Your task to perform on an android device: turn off sleep mode Image 0: 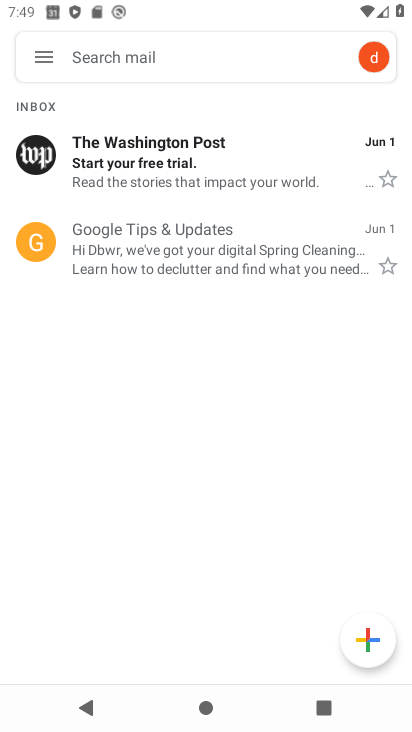
Step 0: press home button
Your task to perform on an android device: turn off sleep mode Image 1: 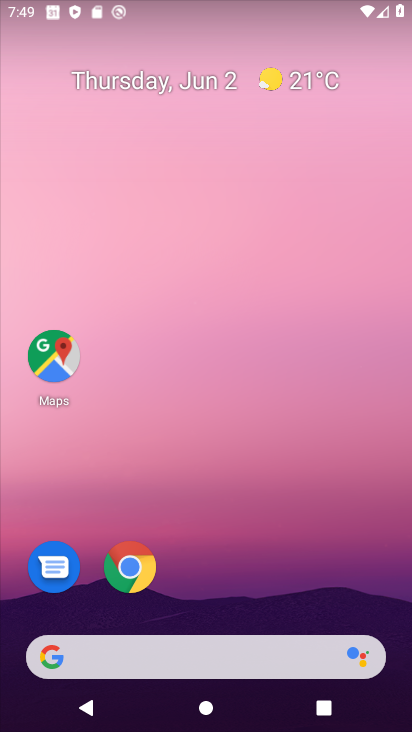
Step 1: drag from (393, 635) to (323, 93)
Your task to perform on an android device: turn off sleep mode Image 2: 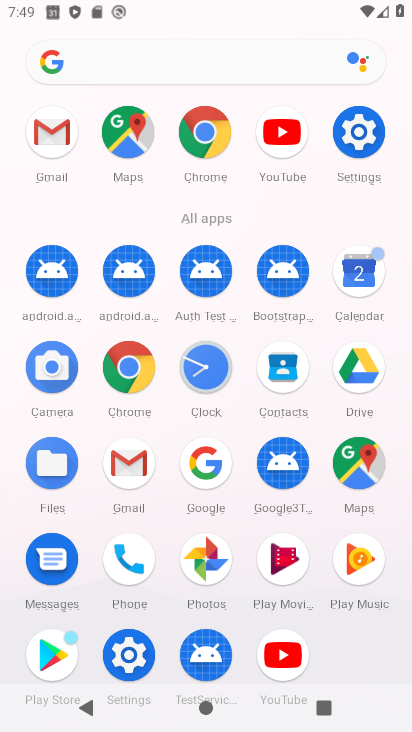
Step 2: click (131, 653)
Your task to perform on an android device: turn off sleep mode Image 3: 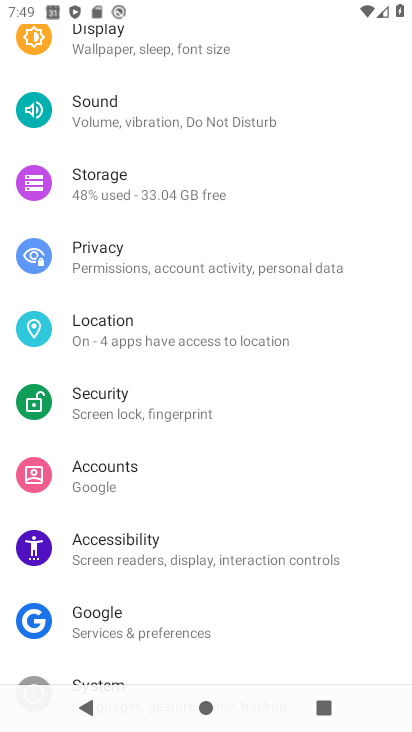
Step 3: drag from (310, 130) to (332, 432)
Your task to perform on an android device: turn off sleep mode Image 4: 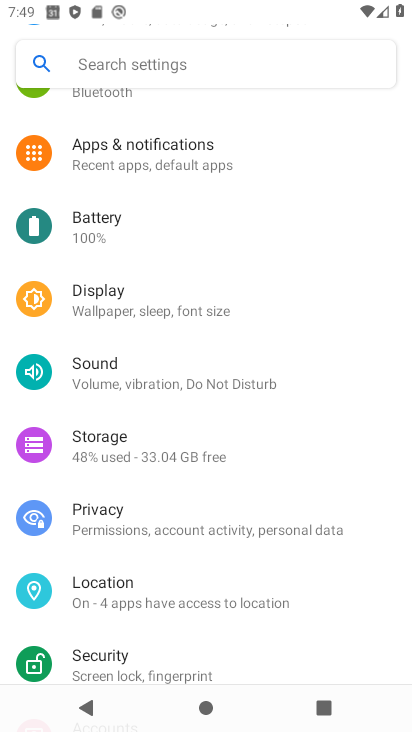
Step 4: click (113, 287)
Your task to perform on an android device: turn off sleep mode Image 5: 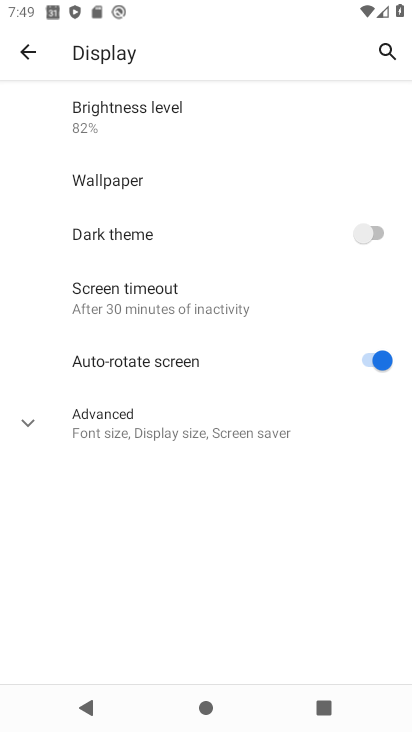
Step 5: click (31, 431)
Your task to perform on an android device: turn off sleep mode Image 6: 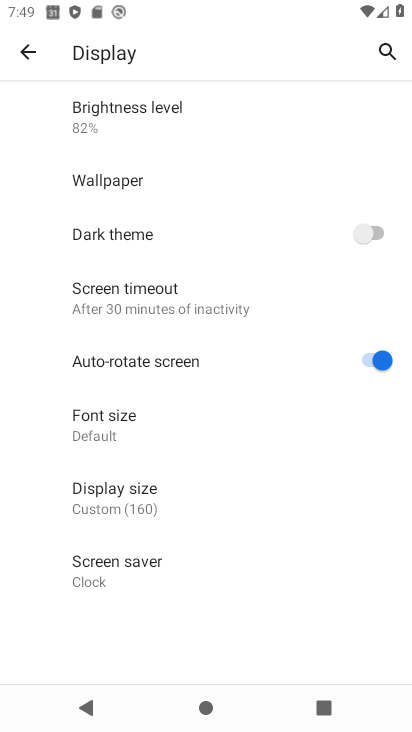
Step 6: task complete